Your task to perform on an android device: Is it going to rain today? Image 0: 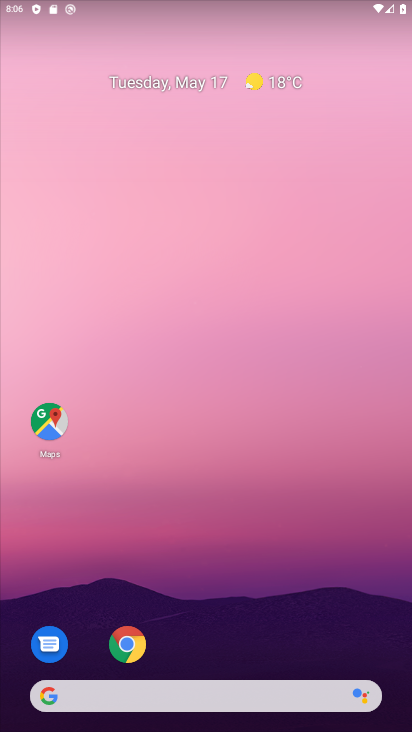
Step 0: click (274, 78)
Your task to perform on an android device: Is it going to rain today? Image 1: 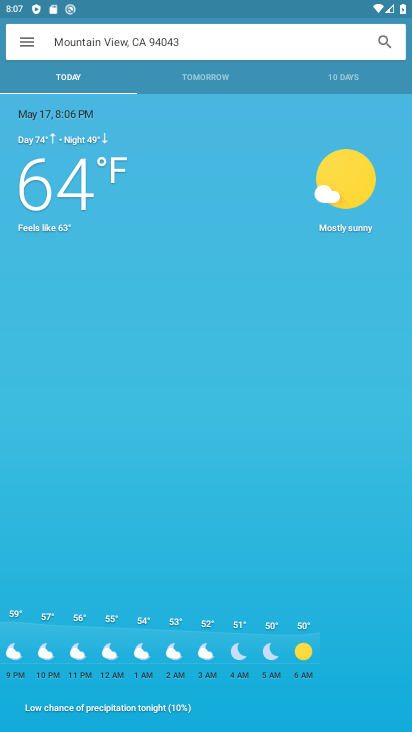
Step 1: task complete